Your task to perform on an android device: turn on translation in the chrome app Image 0: 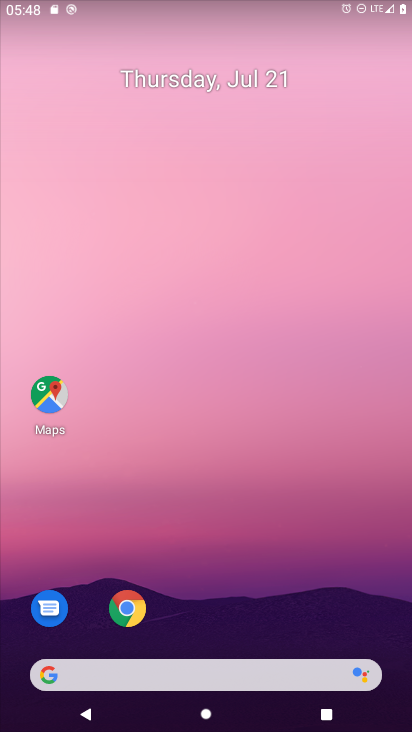
Step 0: drag from (295, 630) to (329, 90)
Your task to perform on an android device: turn on translation in the chrome app Image 1: 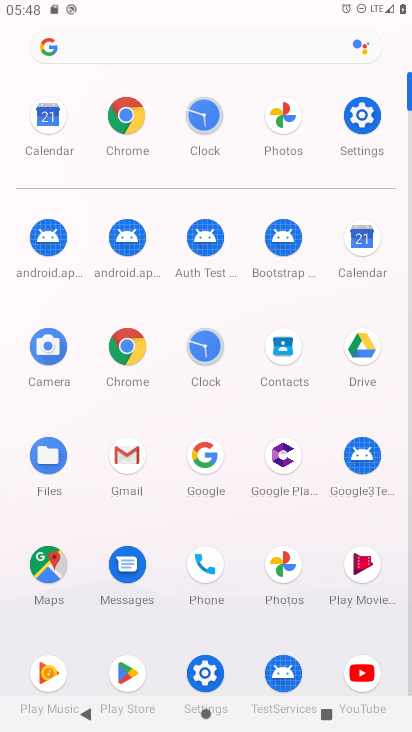
Step 1: click (120, 345)
Your task to perform on an android device: turn on translation in the chrome app Image 2: 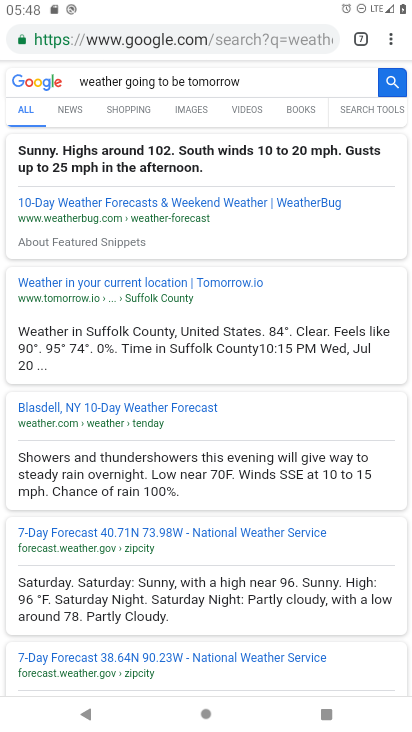
Step 2: drag from (385, 32) to (265, 431)
Your task to perform on an android device: turn on translation in the chrome app Image 3: 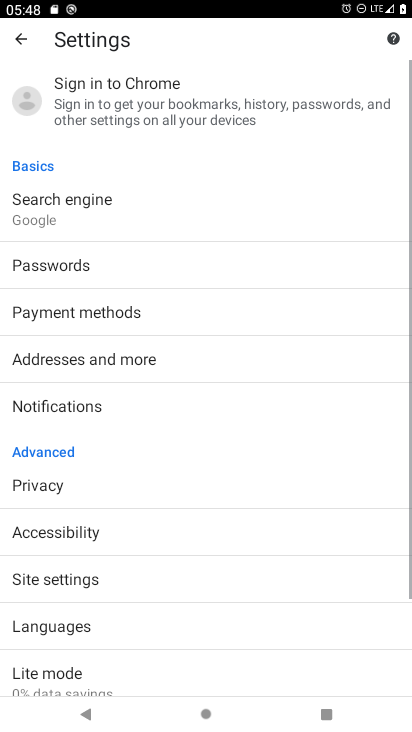
Step 3: click (75, 625)
Your task to perform on an android device: turn on translation in the chrome app Image 4: 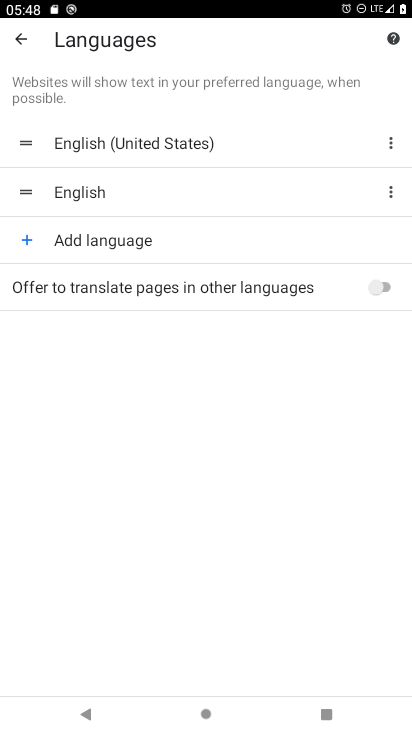
Step 4: click (383, 288)
Your task to perform on an android device: turn on translation in the chrome app Image 5: 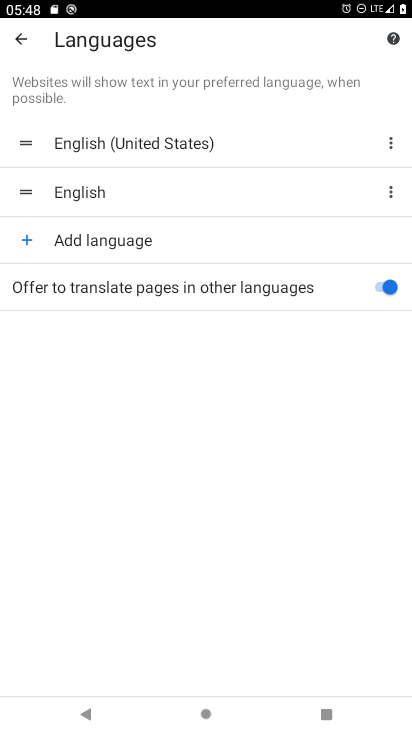
Step 5: task complete